Your task to perform on an android device: remove spam from my inbox in the gmail app Image 0: 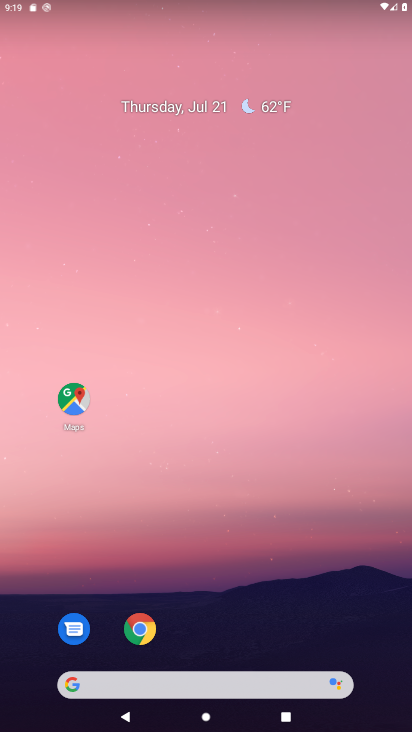
Step 0: drag from (219, 650) to (223, 165)
Your task to perform on an android device: remove spam from my inbox in the gmail app Image 1: 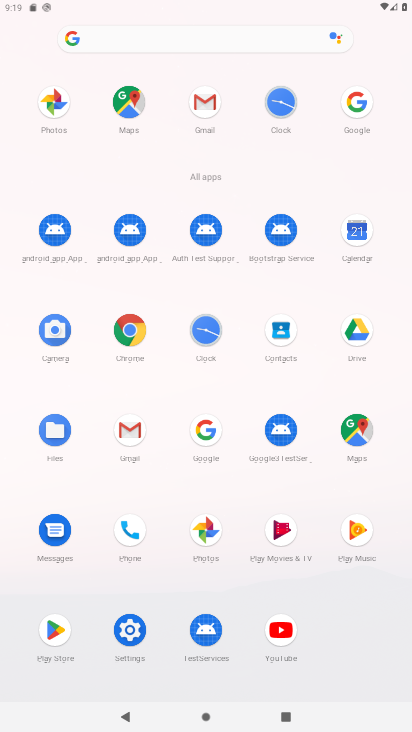
Step 1: click (199, 103)
Your task to perform on an android device: remove spam from my inbox in the gmail app Image 2: 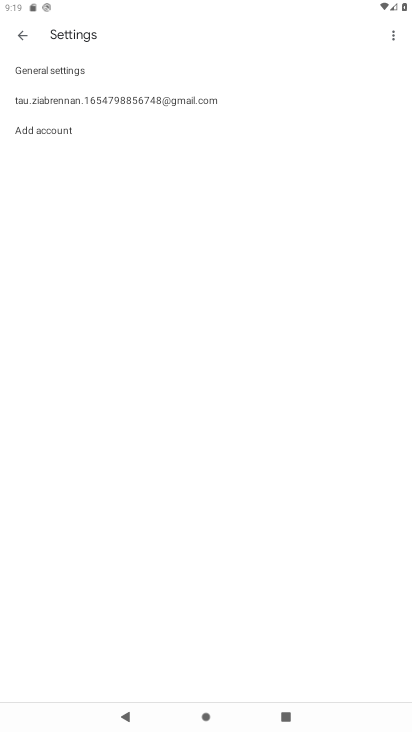
Step 2: click (29, 33)
Your task to perform on an android device: remove spam from my inbox in the gmail app Image 3: 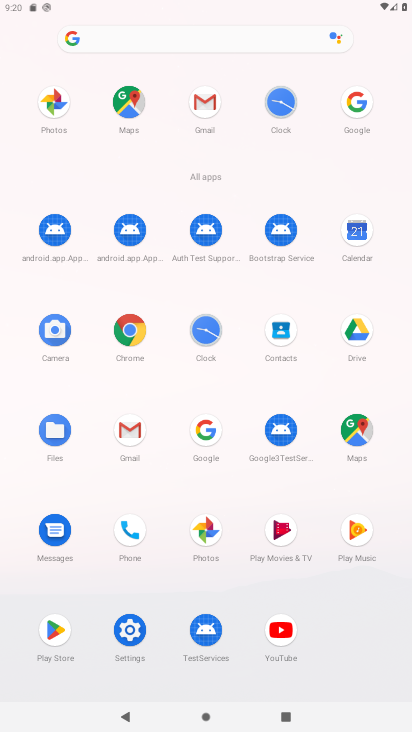
Step 3: click (213, 107)
Your task to perform on an android device: remove spam from my inbox in the gmail app Image 4: 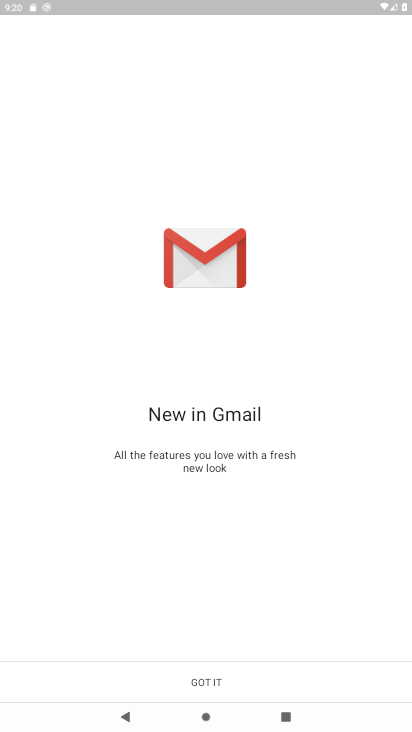
Step 4: click (242, 676)
Your task to perform on an android device: remove spam from my inbox in the gmail app Image 5: 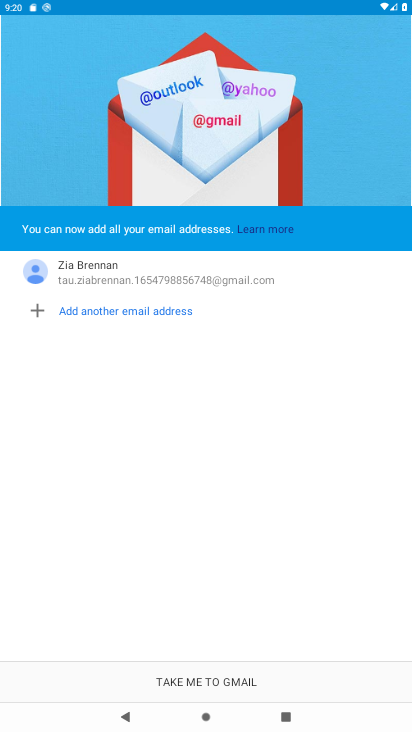
Step 5: click (199, 689)
Your task to perform on an android device: remove spam from my inbox in the gmail app Image 6: 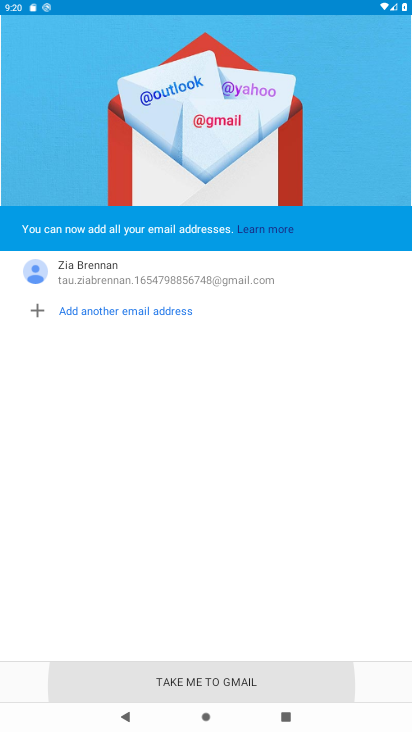
Step 6: click (199, 687)
Your task to perform on an android device: remove spam from my inbox in the gmail app Image 7: 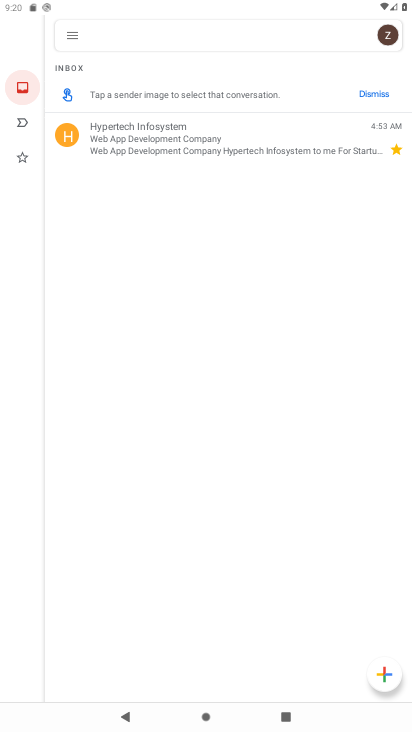
Step 7: click (70, 34)
Your task to perform on an android device: remove spam from my inbox in the gmail app Image 8: 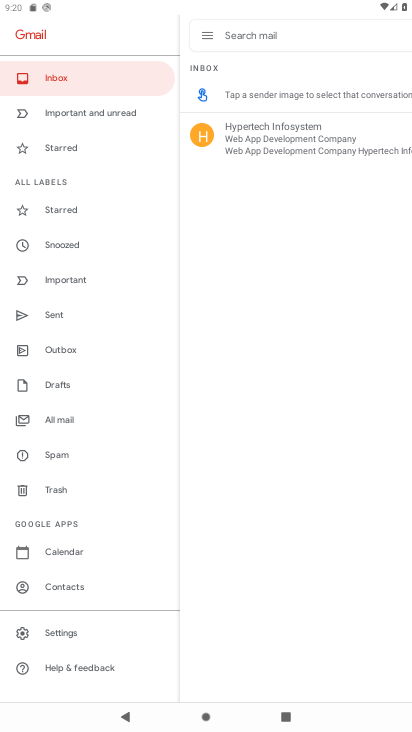
Step 8: click (69, 452)
Your task to perform on an android device: remove spam from my inbox in the gmail app Image 9: 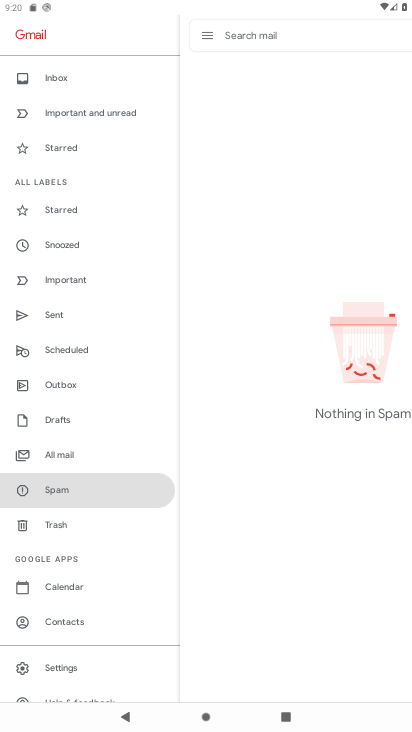
Step 9: task complete